Your task to perform on an android device: search for starred emails in the gmail app Image 0: 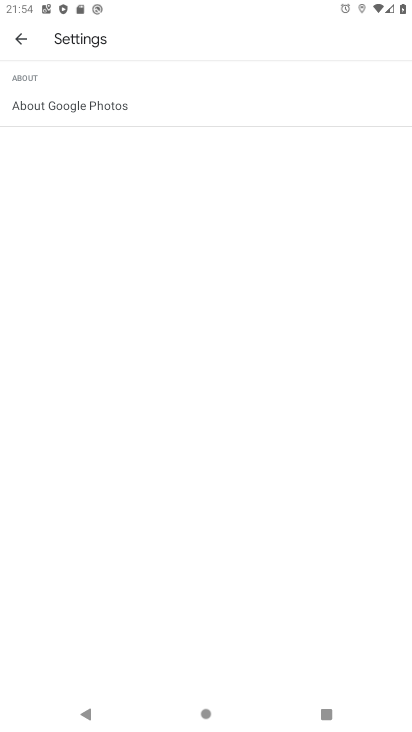
Step 0: press home button
Your task to perform on an android device: search for starred emails in the gmail app Image 1: 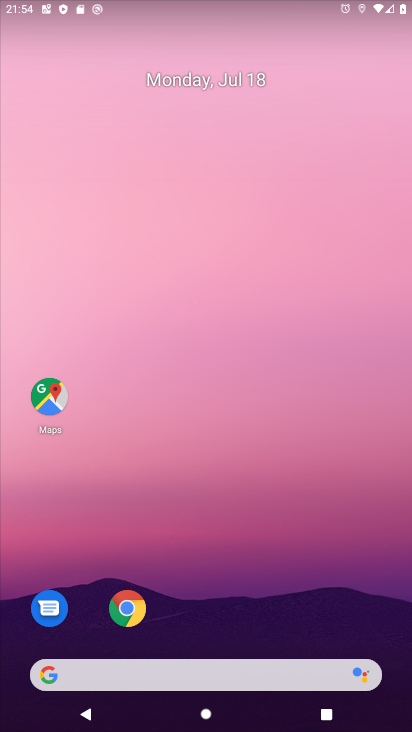
Step 1: drag from (210, 344) to (298, 121)
Your task to perform on an android device: search for starred emails in the gmail app Image 2: 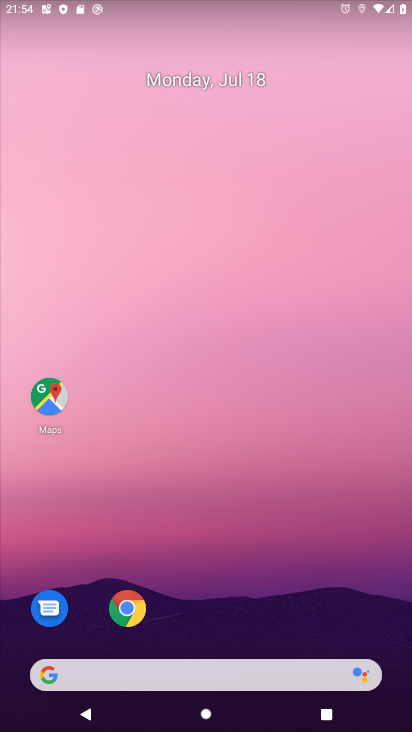
Step 2: drag from (16, 686) to (358, 37)
Your task to perform on an android device: search for starred emails in the gmail app Image 3: 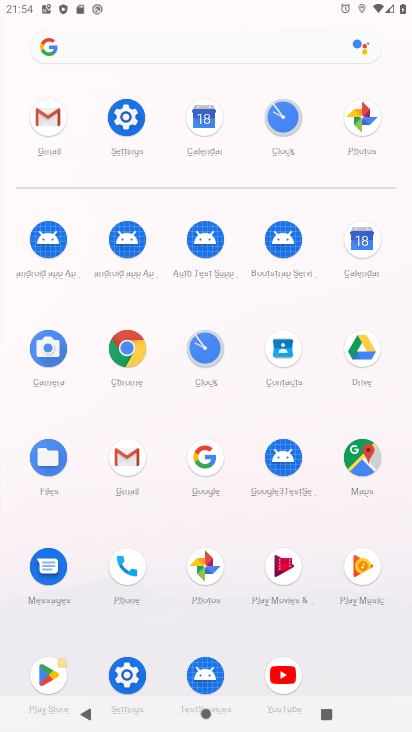
Step 3: click (125, 451)
Your task to perform on an android device: search for starred emails in the gmail app Image 4: 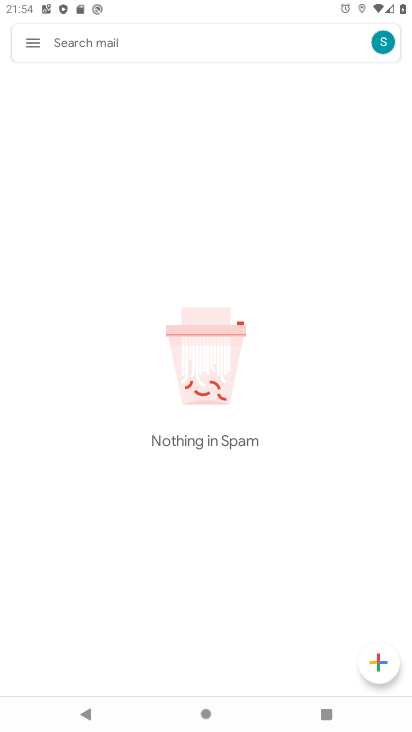
Step 4: click (31, 40)
Your task to perform on an android device: search for starred emails in the gmail app Image 5: 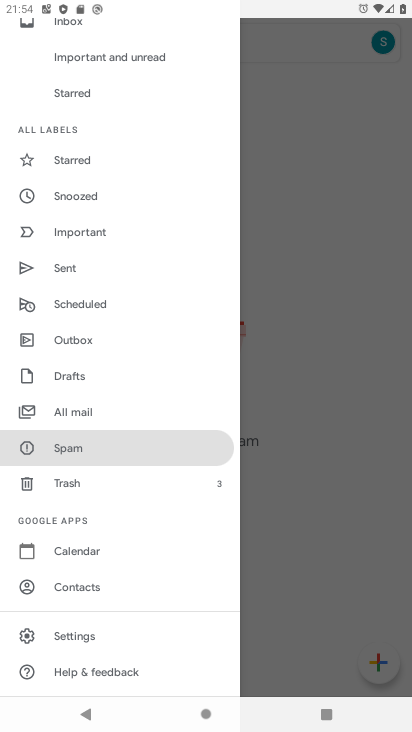
Step 5: click (88, 159)
Your task to perform on an android device: search for starred emails in the gmail app Image 6: 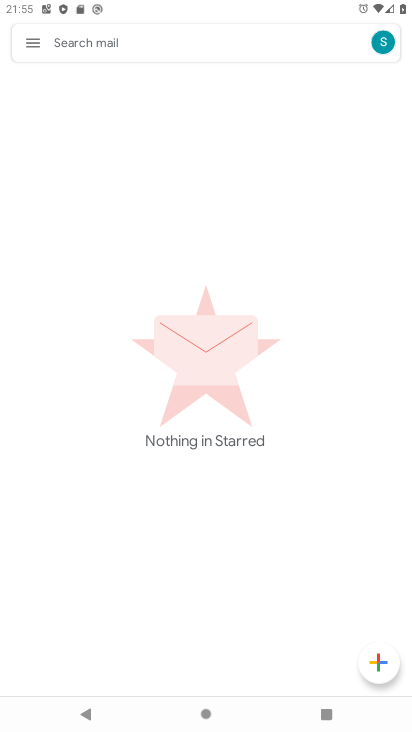
Step 6: task complete